Your task to perform on an android device: Open Google Chrome and click the shortcut for Amazon.com Image 0: 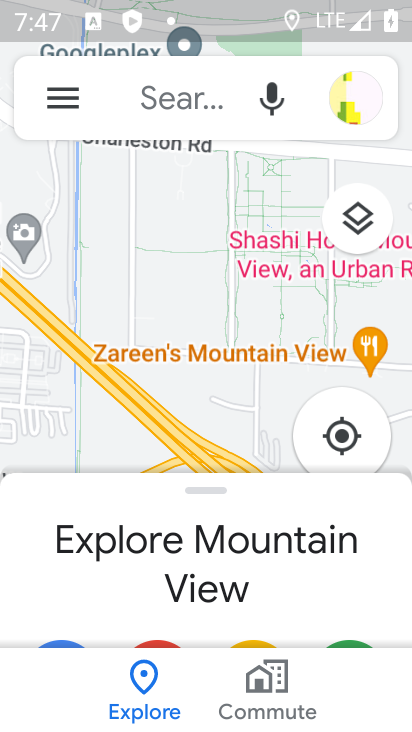
Step 0: press home button
Your task to perform on an android device: Open Google Chrome and click the shortcut for Amazon.com Image 1: 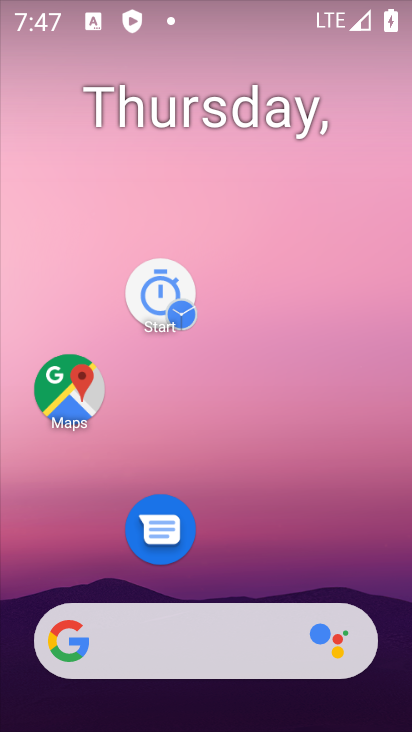
Step 1: drag from (331, 530) to (187, 192)
Your task to perform on an android device: Open Google Chrome and click the shortcut for Amazon.com Image 2: 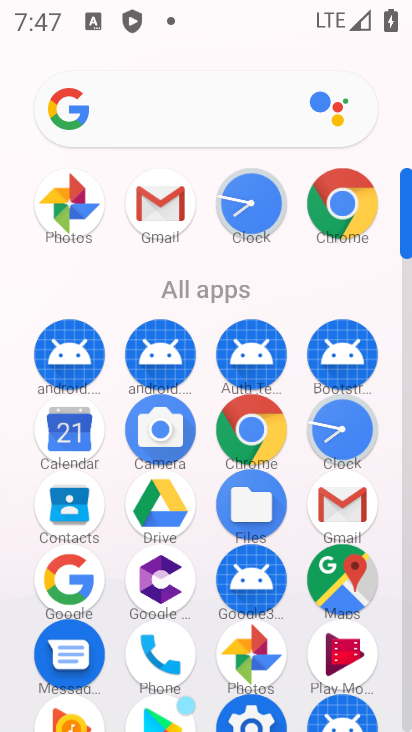
Step 2: click (336, 222)
Your task to perform on an android device: Open Google Chrome and click the shortcut for Amazon.com Image 3: 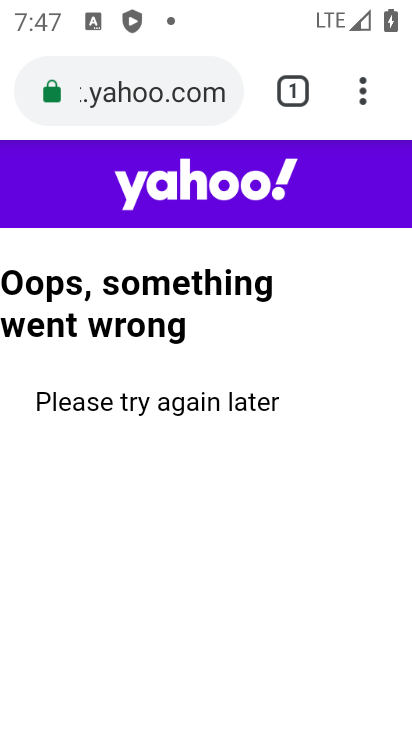
Step 3: click (305, 97)
Your task to perform on an android device: Open Google Chrome and click the shortcut for Amazon.com Image 4: 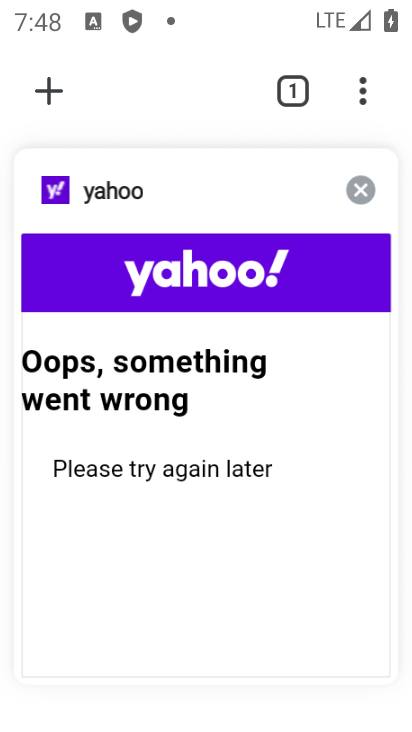
Step 4: click (54, 90)
Your task to perform on an android device: Open Google Chrome and click the shortcut for Amazon.com Image 5: 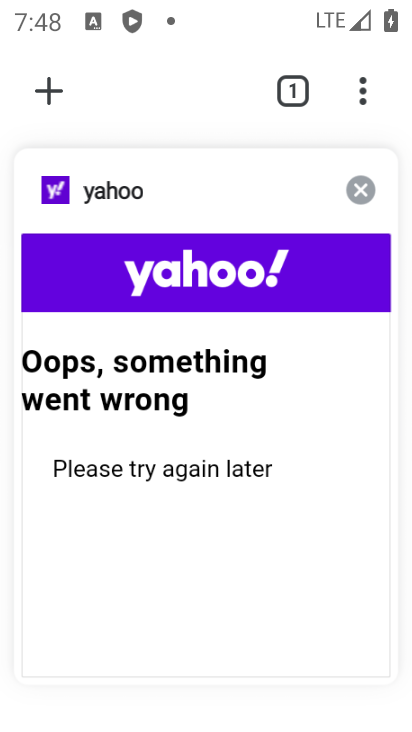
Step 5: click (45, 93)
Your task to perform on an android device: Open Google Chrome and click the shortcut for Amazon.com Image 6: 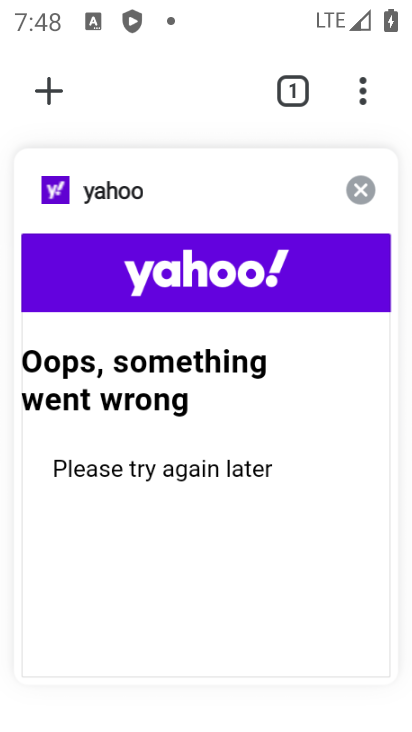
Step 6: click (45, 92)
Your task to perform on an android device: Open Google Chrome and click the shortcut for Amazon.com Image 7: 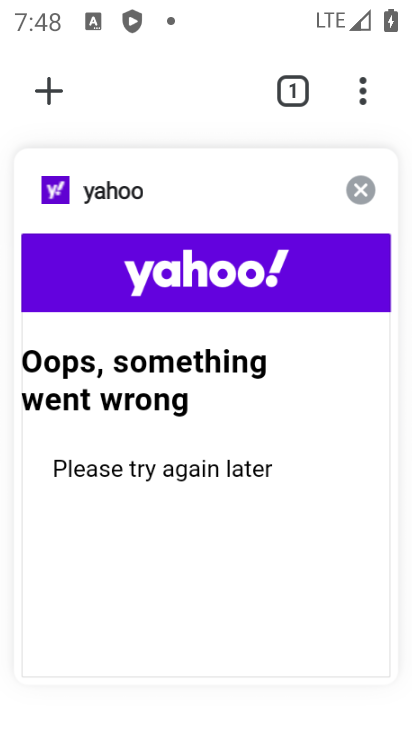
Step 7: click (40, 87)
Your task to perform on an android device: Open Google Chrome and click the shortcut for Amazon.com Image 8: 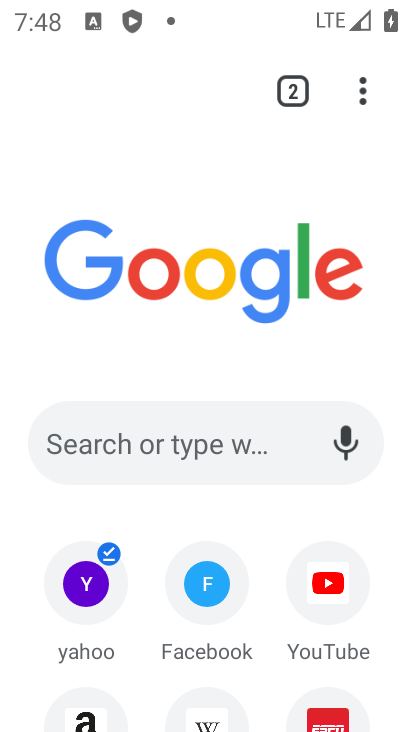
Step 8: click (86, 727)
Your task to perform on an android device: Open Google Chrome and click the shortcut for Amazon.com Image 9: 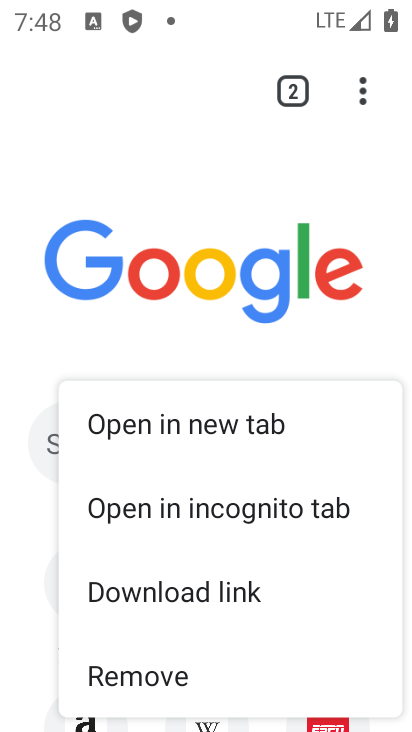
Step 9: click (67, 725)
Your task to perform on an android device: Open Google Chrome and click the shortcut for Amazon.com Image 10: 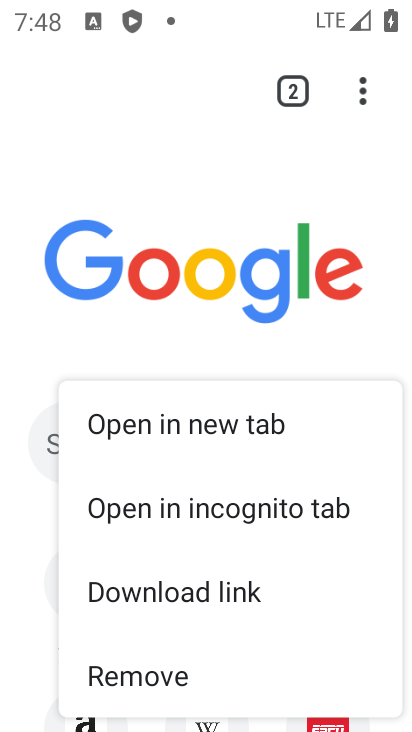
Step 10: click (58, 716)
Your task to perform on an android device: Open Google Chrome and click the shortcut for Amazon.com Image 11: 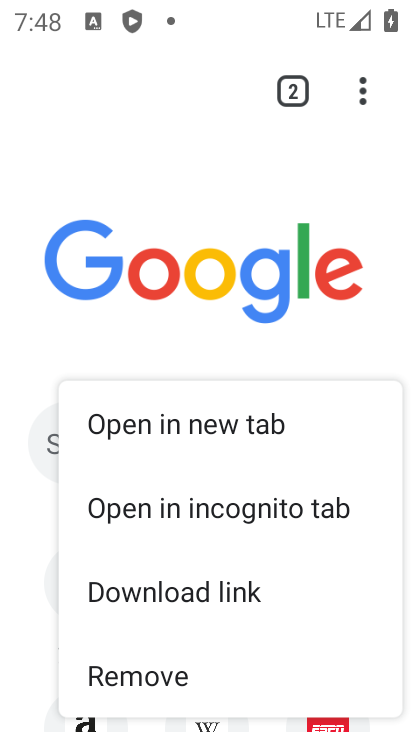
Step 11: click (50, 716)
Your task to perform on an android device: Open Google Chrome and click the shortcut for Amazon.com Image 12: 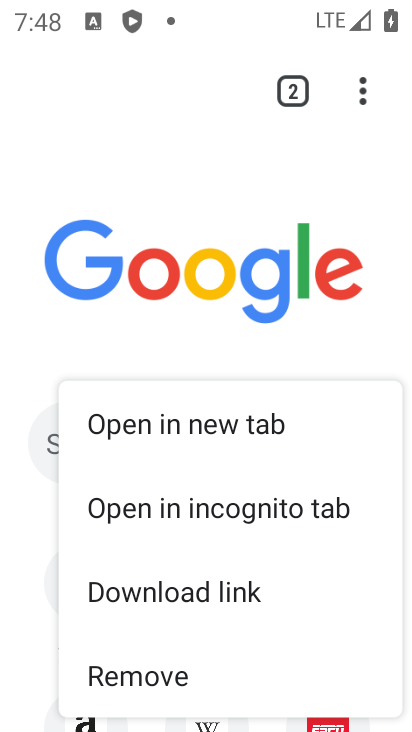
Step 12: click (130, 101)
Your task to perform on an android device: Open Google Chrome and click the shortcut for Amazon.com Image 13: 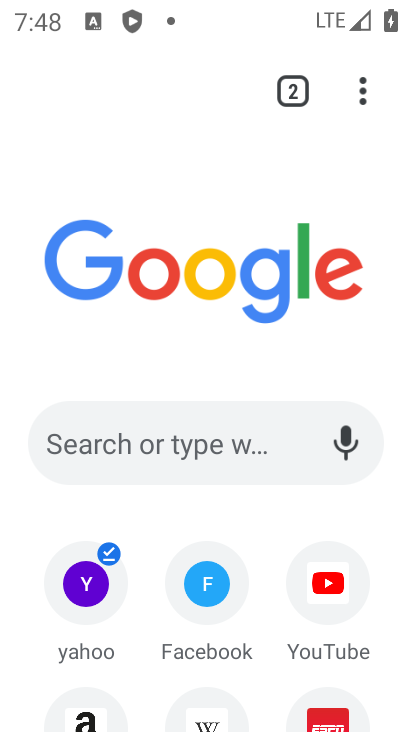
Step 13: click (92, 709)
Your task to perform on an android device: Open Google Chrome and click the shortcut for Amazon.com Image 14: 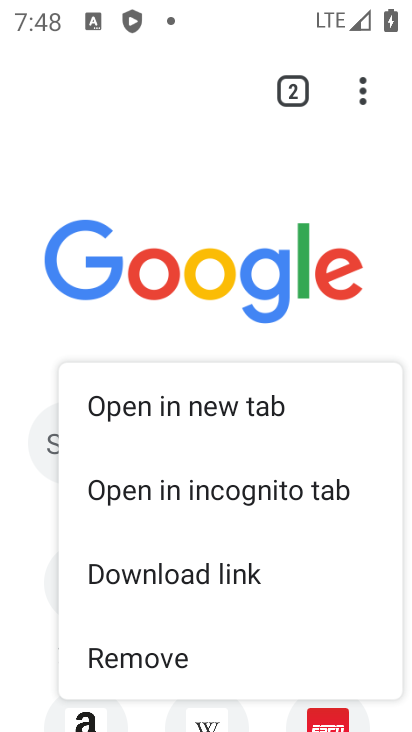
Step 14: click (92, 709)
Your task to perform on an android device: Open Google Chrome and click the shortcut for Amazon.com Image 15: 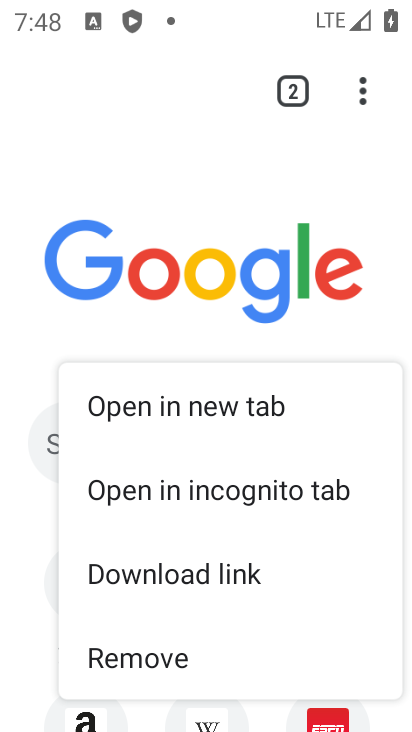
Step 15: click (80, 718)
Your task to perform on an android device: Open Google Chrome and click the shortcut for Amazon.com Image 16: 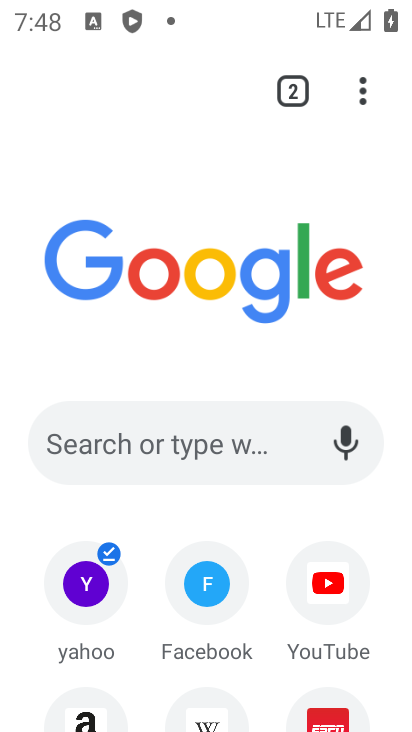
Step 16: click (80, 718)
Your task to perform on an android device: Open Google Chrome and click the shortcut for Amazon.com Image 17: 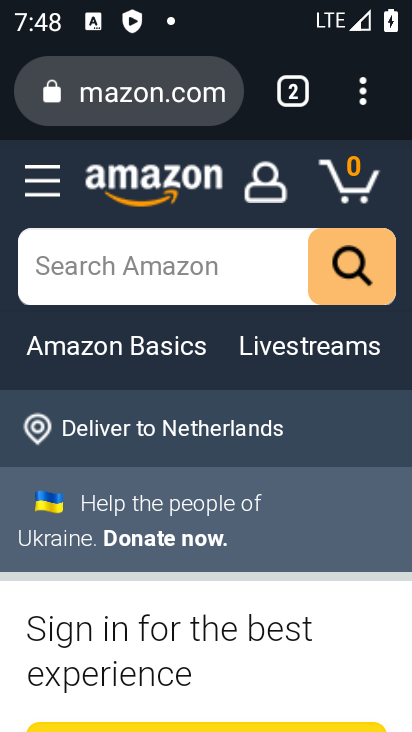
Step 17: task complete